Your task to perform on an android device: Open Wikipedia Image 0: 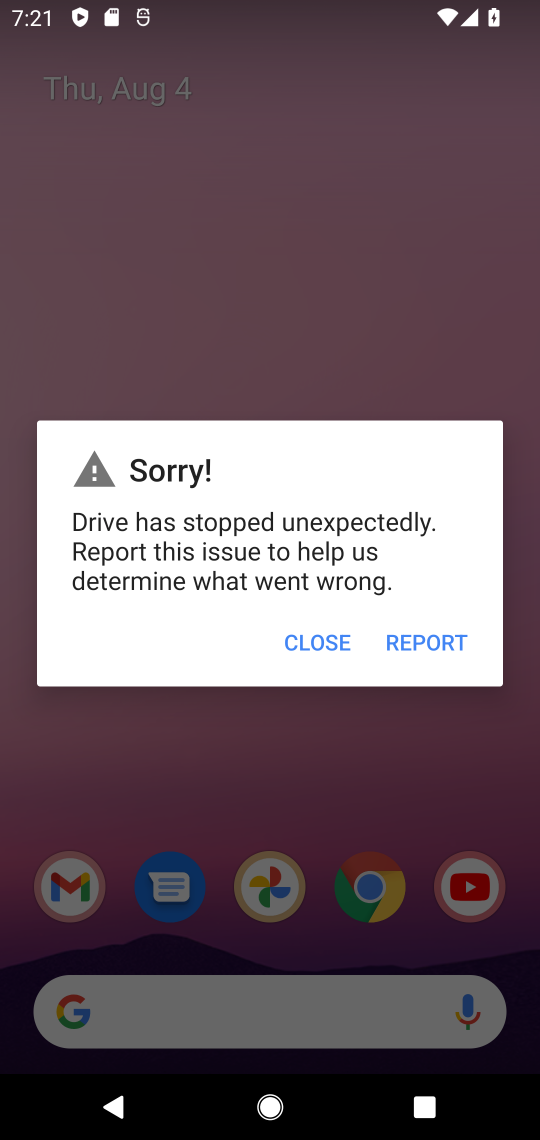
Step 0: press home button
Your task to perform on an android device: Open Wikipedia Image 1: 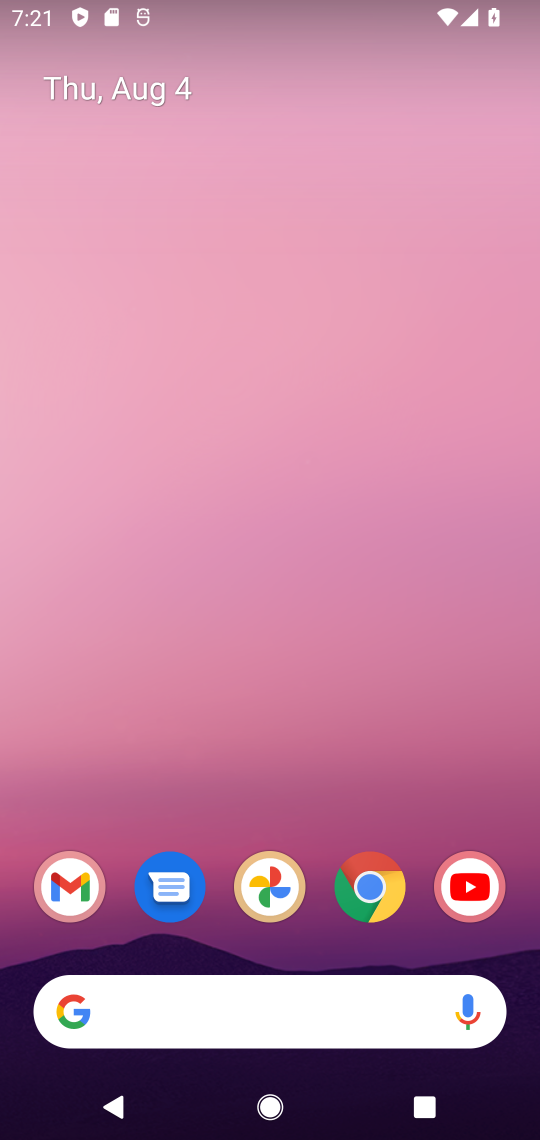
Step 1: click (352, 888)
Your task to perform on an android device: Open Wikipedia Image 2: 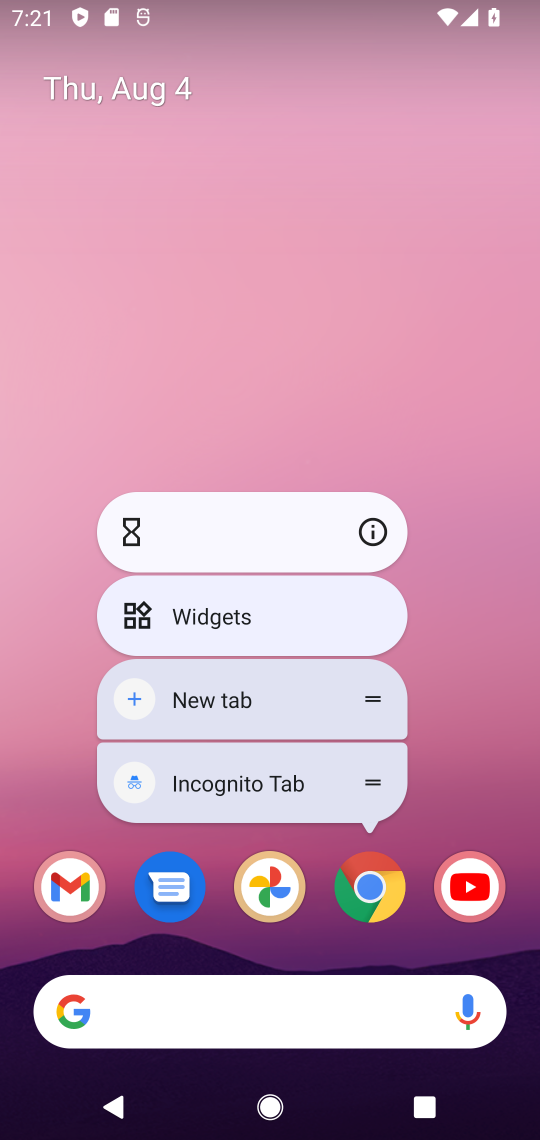
Step 2: click (366, 890)
Your task to perform on an android device: Open Wikipedia Image 3: 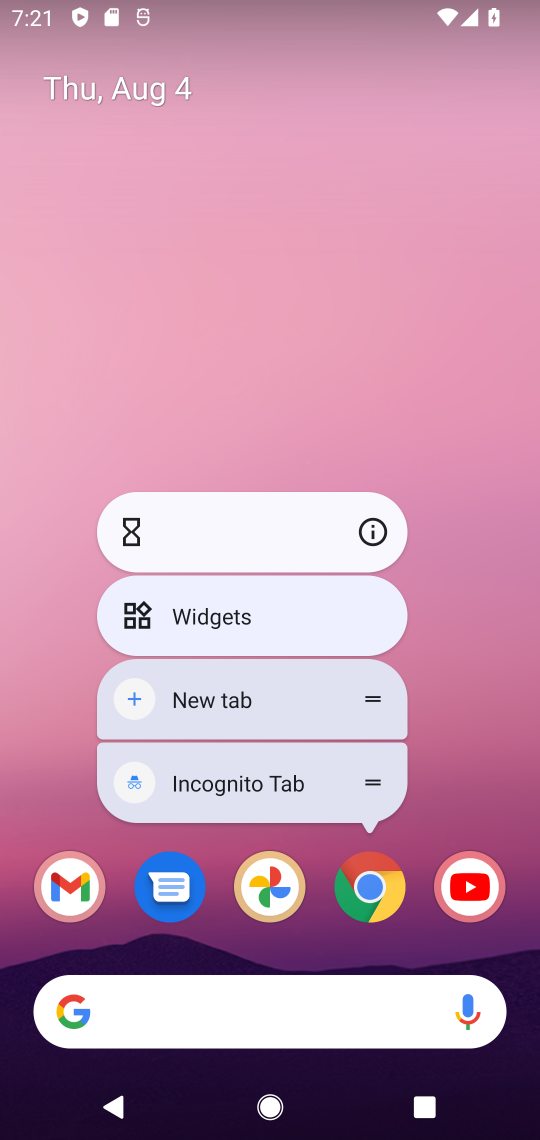
Step 3: click (379, 899)
Your task to perform on an android device: Open Wikipedia Image 4: 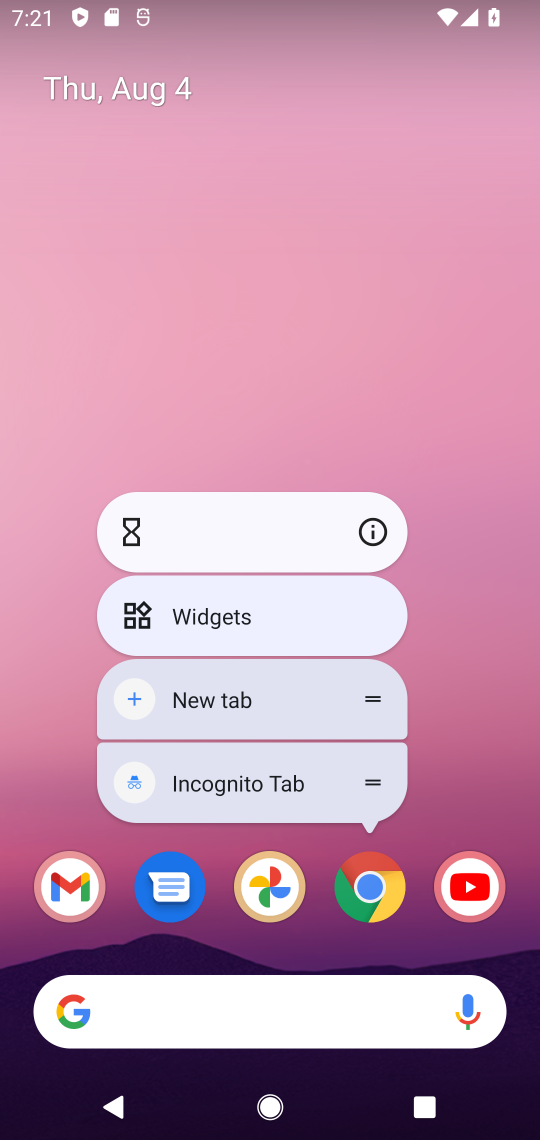
Step 4: click (370, 890)
Your task to perform on an android device: Open Wikipedia Image 5: 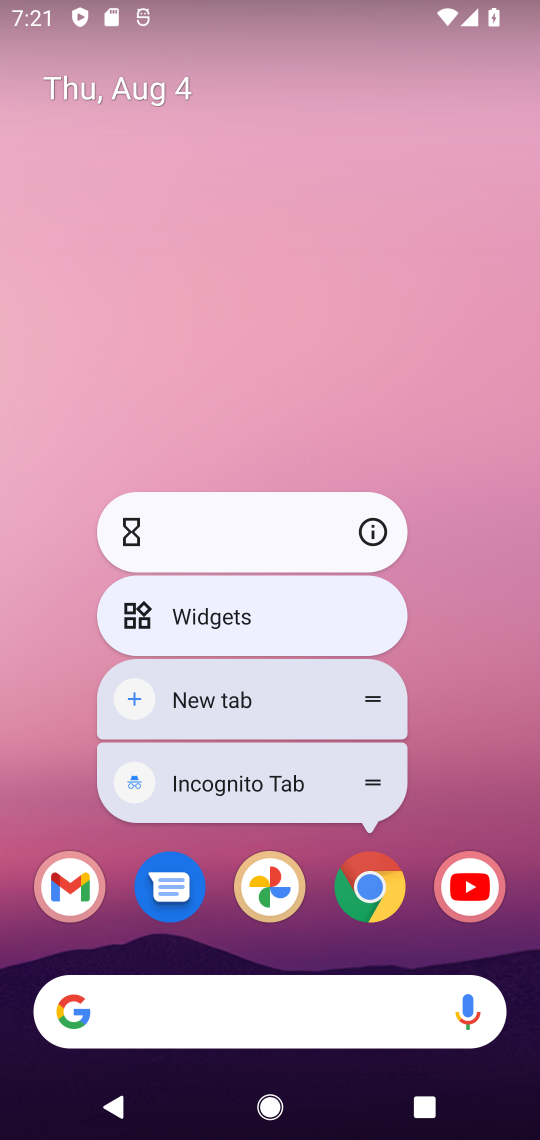
Step 5: click (360, 889)
Your task to perform on an android device: Open Wikipedia Image 6: 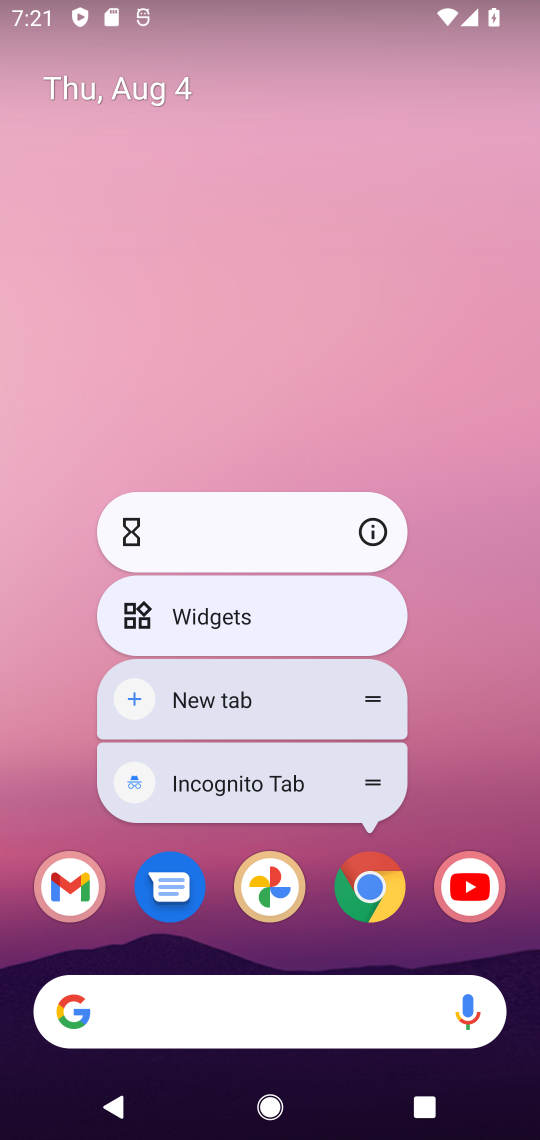
Step 6: click (374, 889)
Your task to perform on an android device: Open Wikipedia Image 7: 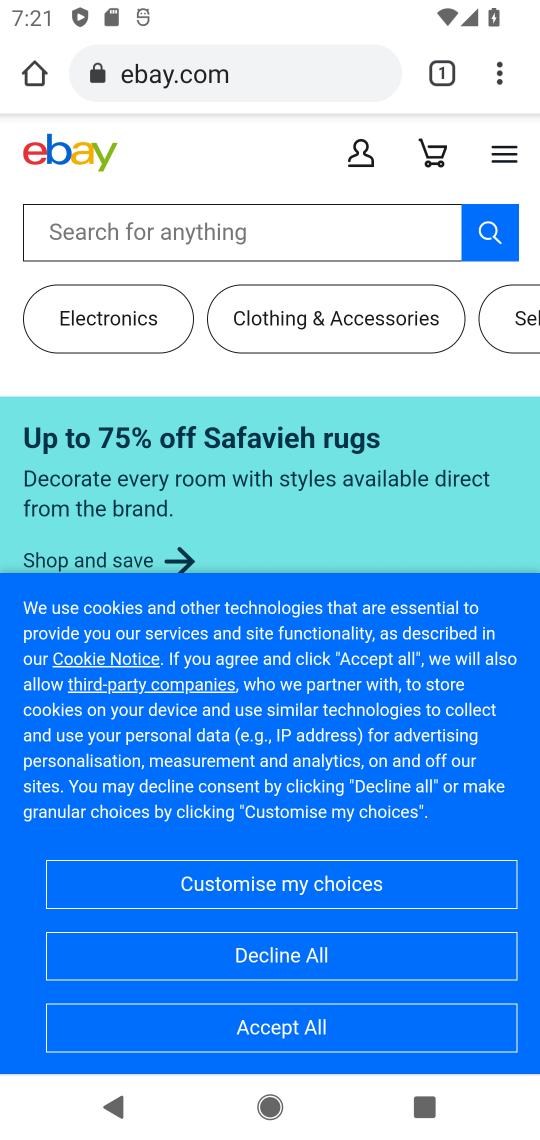
Step 7: click (436, 73)
Your task to perform on an android device: Open Wikipedia Image 8: 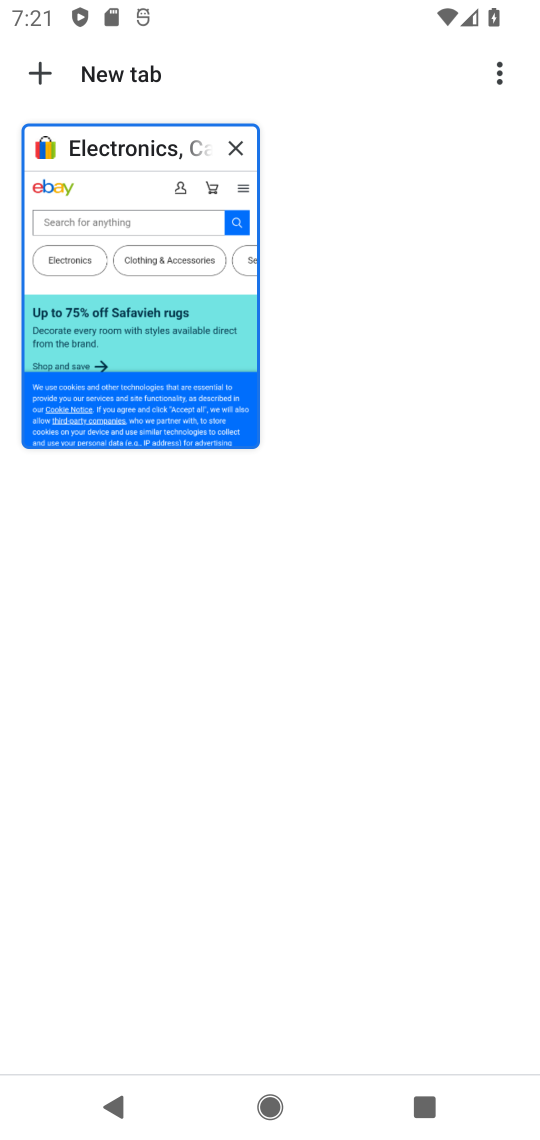
Step 8: click (242, 155)
Your task to perform on an android device: Open Wikipedia Image 9: 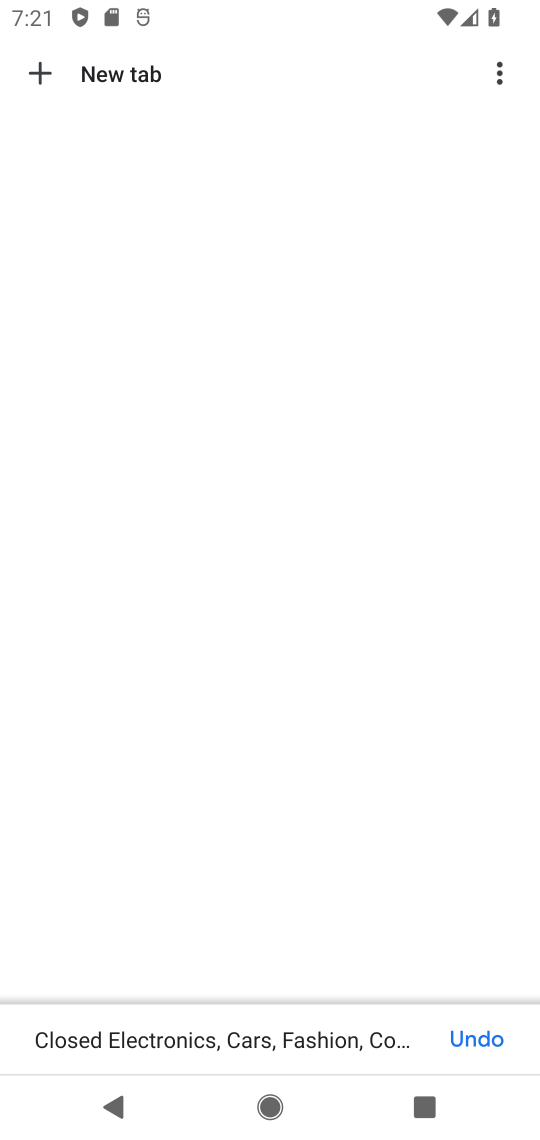
Step 9: click (40, 79)
Your task to perform on an android device: Open Wikipedia Image 10: 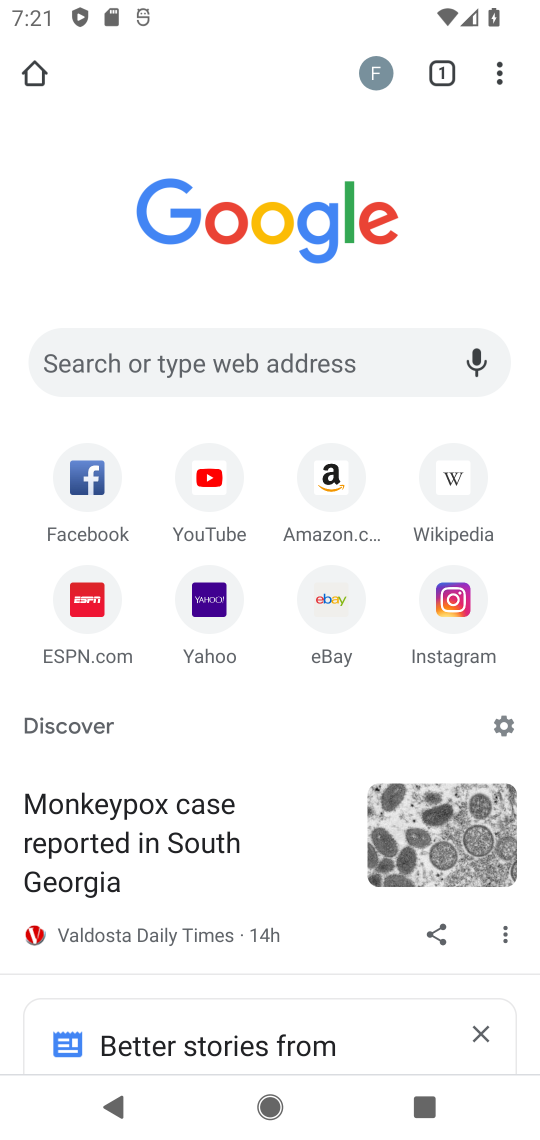
Step 10: click (458, 474)
Your task to perform on an android device: Open Wikipedia Image 11: 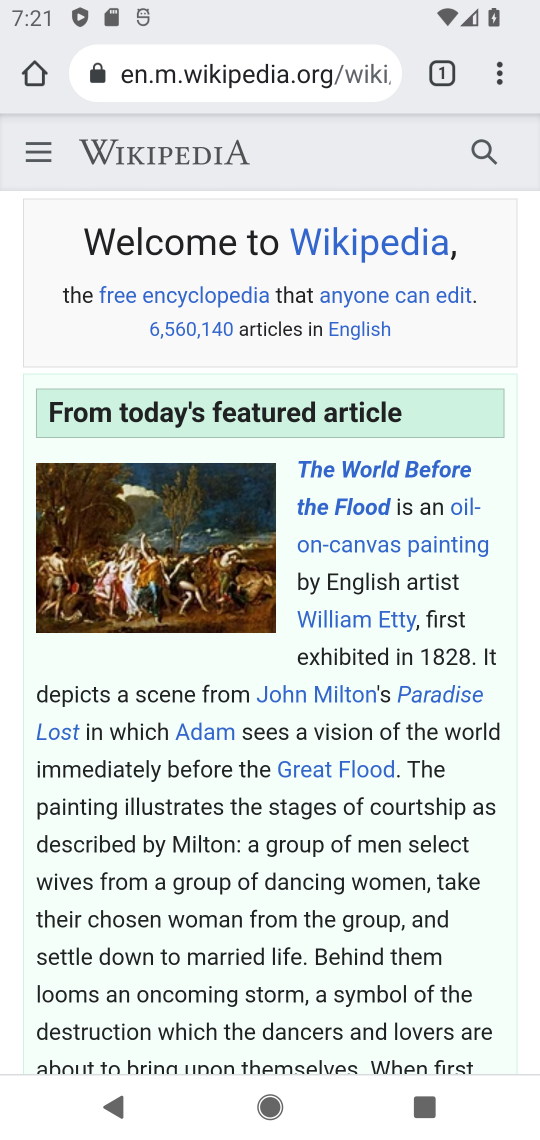
Step 11: task complete